Your task to perform on an android device: open app "Google Drive" Image 0: 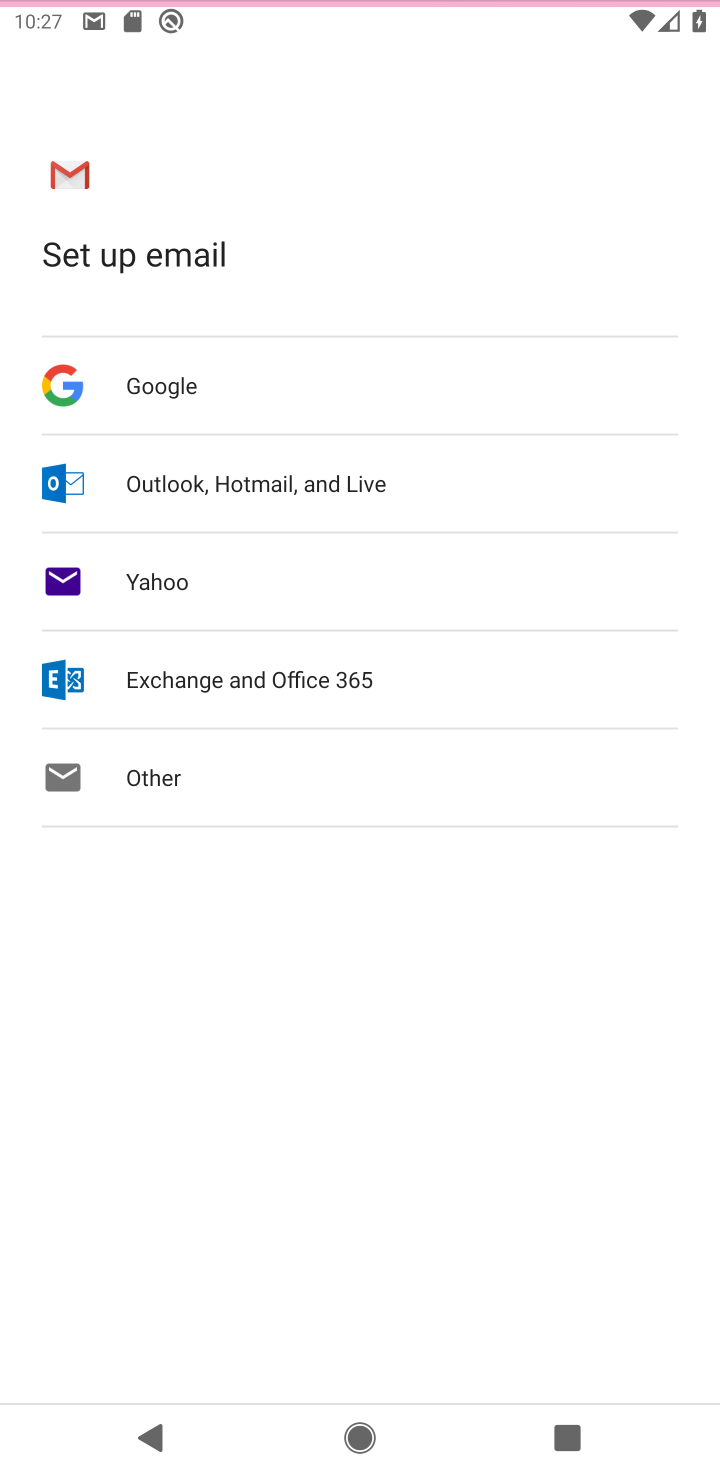
Step 0: press home button
Your task to perform on an android device: open app "Google Drive" Image 1: 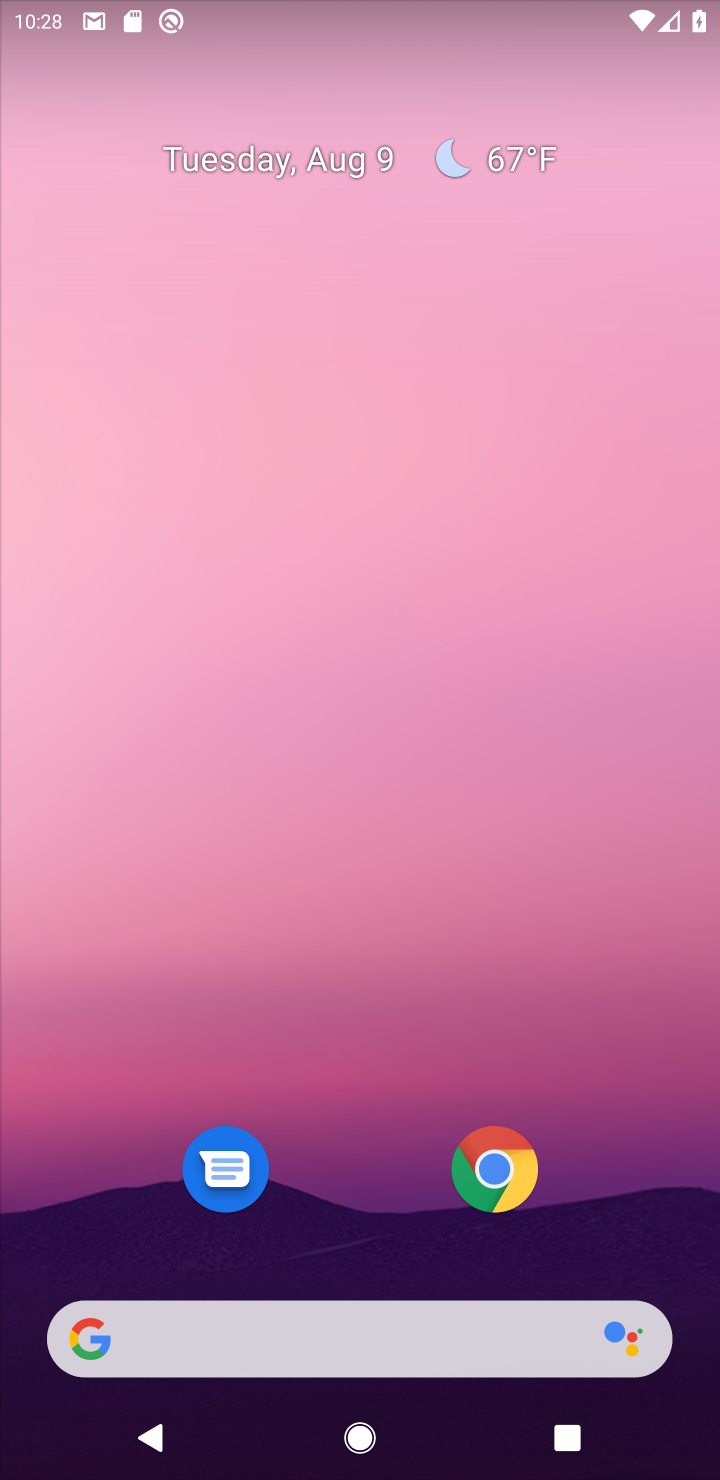
Step 1: drag from (642, 995) to (620, 135)
Your task to perform on an android device: open app "Google Drive" Image 2: 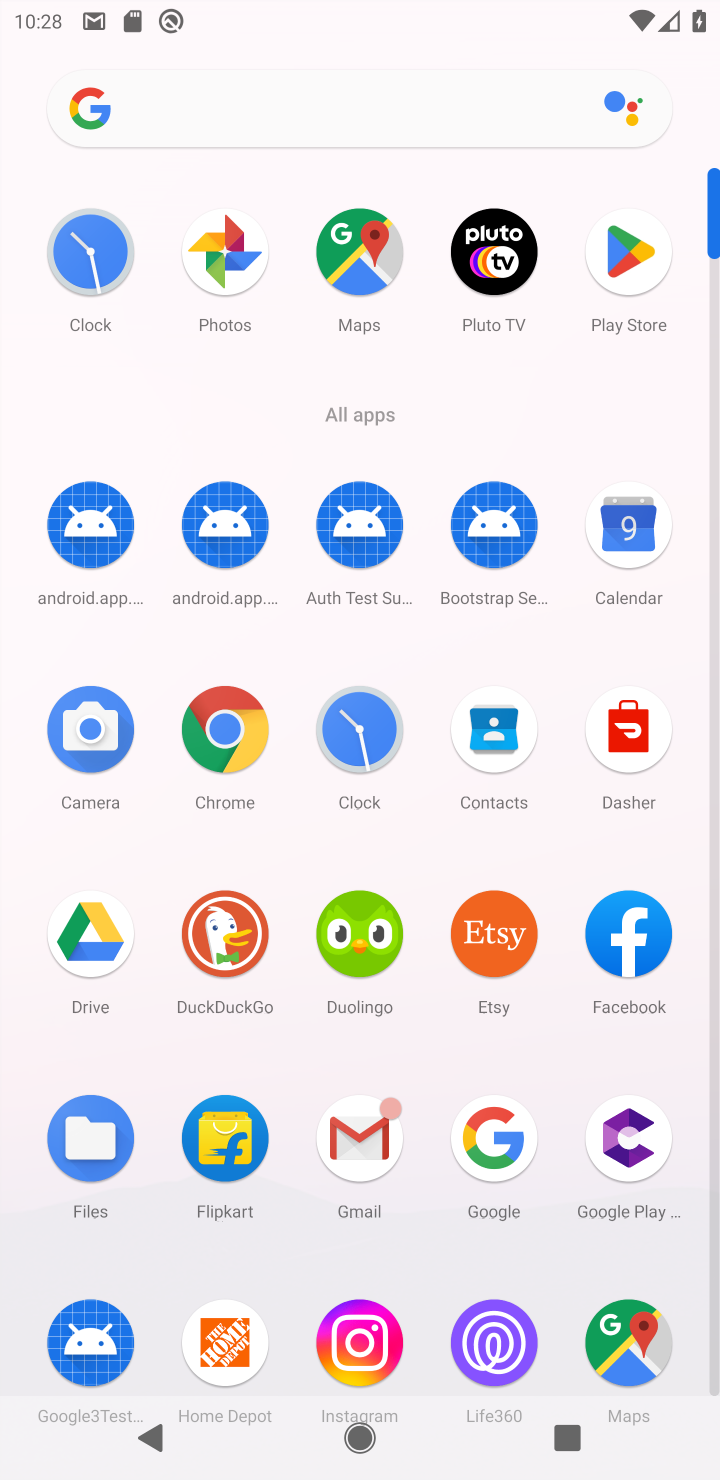
Step 2: click (628, 258)
Your task to perform on an android device: open app "Google Drive" Image 3: 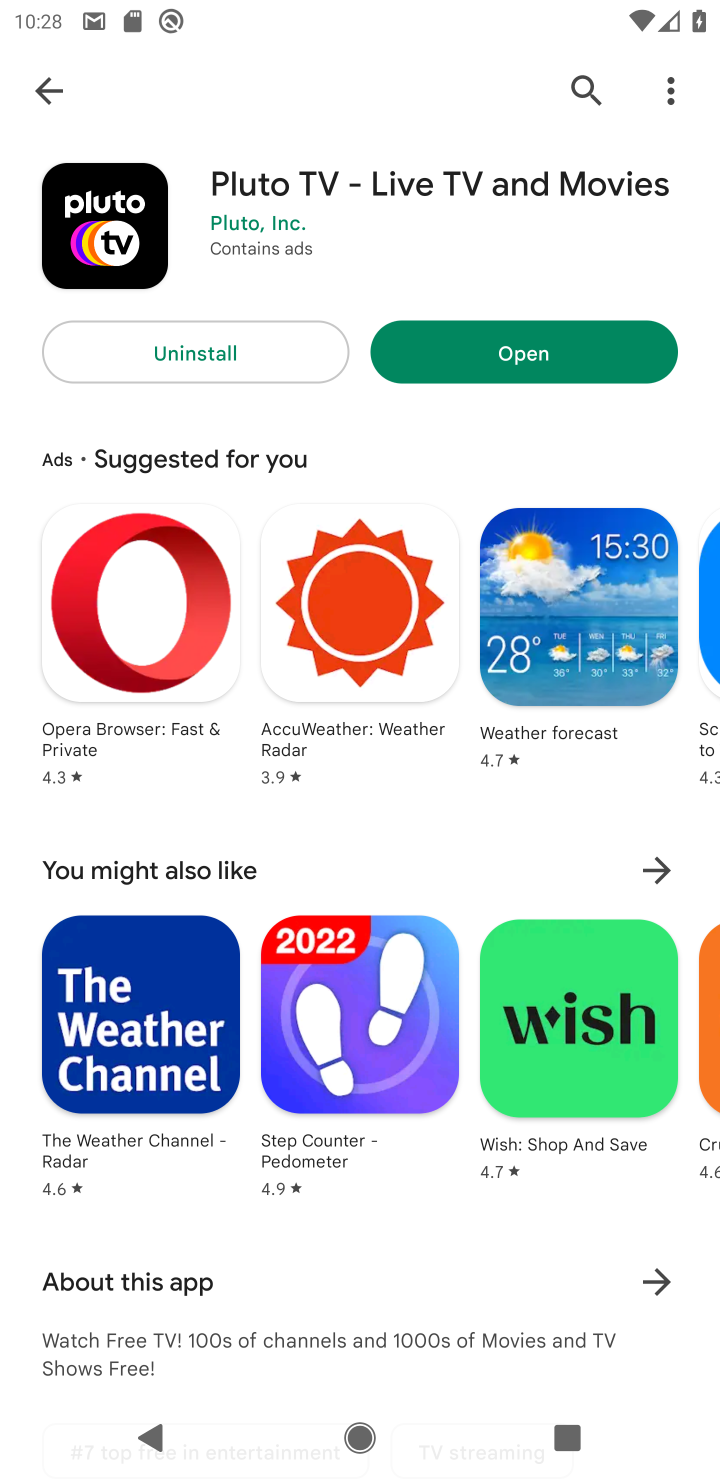
Step 3: click (586, 87)
Your task to perform on an android device: open app "Google Drive" Image 4: 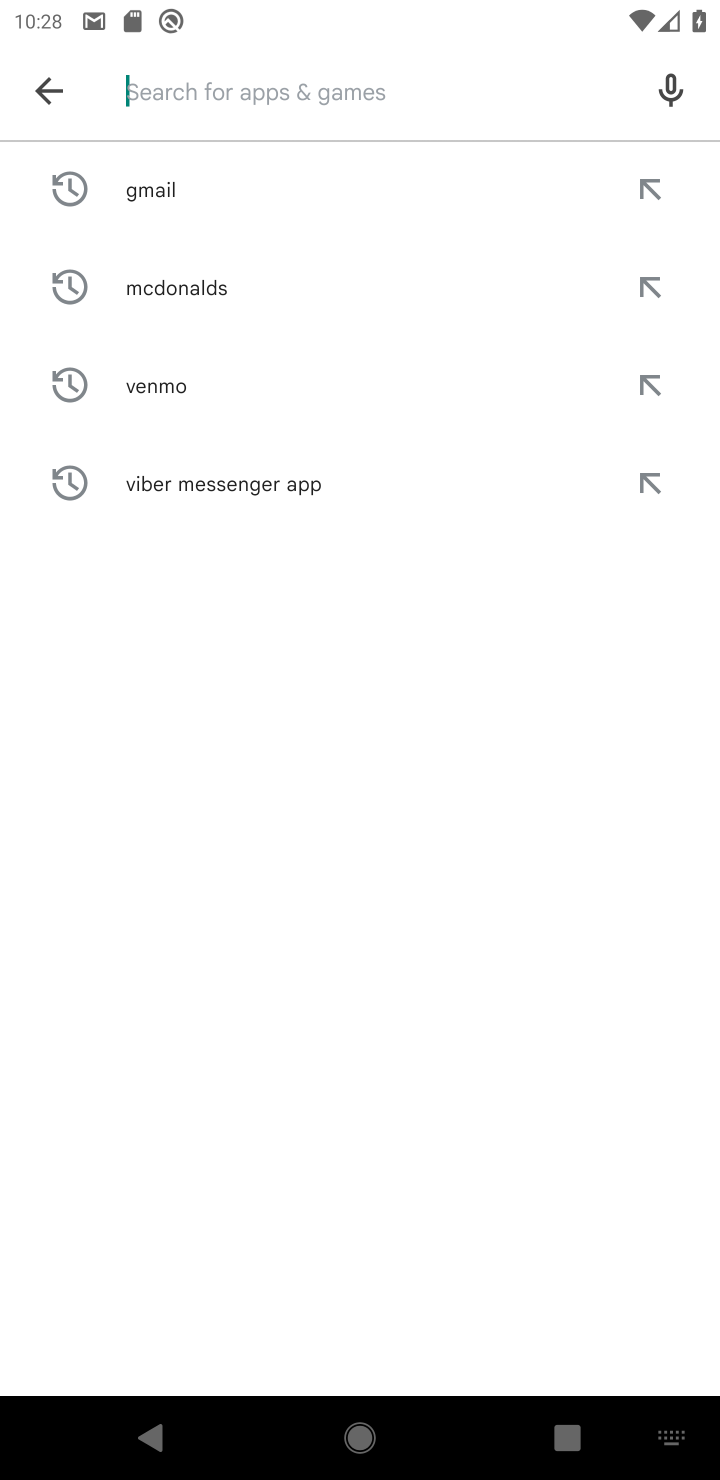
Step 4: type "google drive "
Your task to perform on an android device: open app "Google Drive" Image 5: 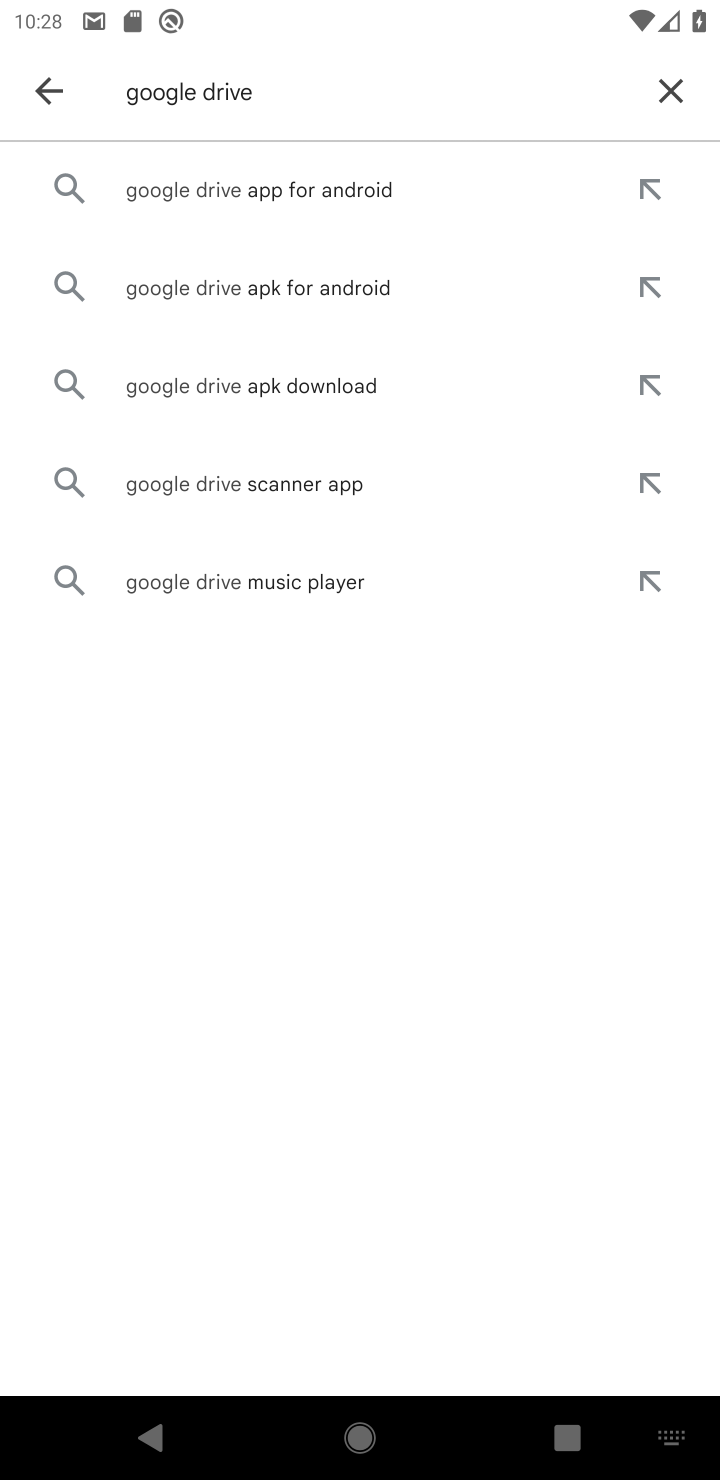
Step 5: click (379, 199)
Your task to perform on an android device: open app "Google Drive" Image 6: 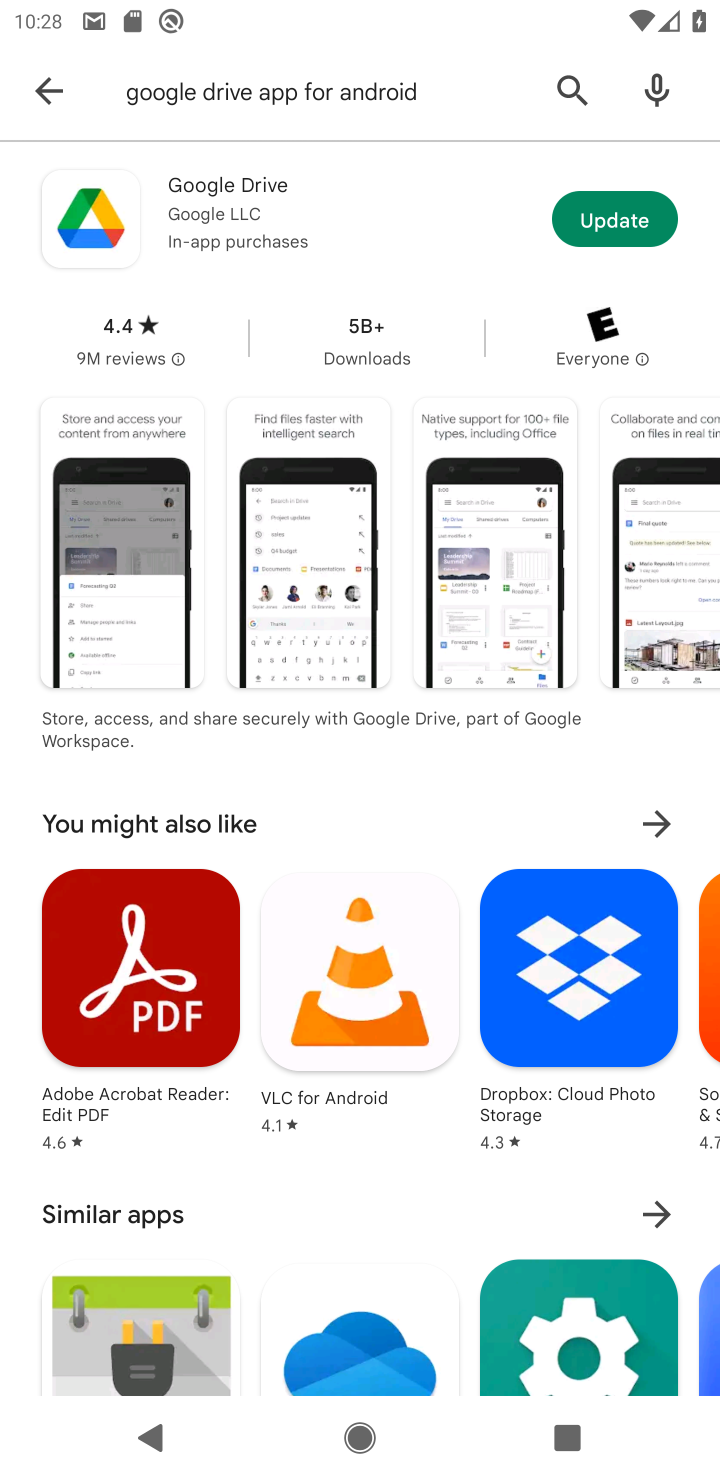
Step 6: click (613, 211)
Your task to perform on an android device: open app "Google Drive" Image 7: 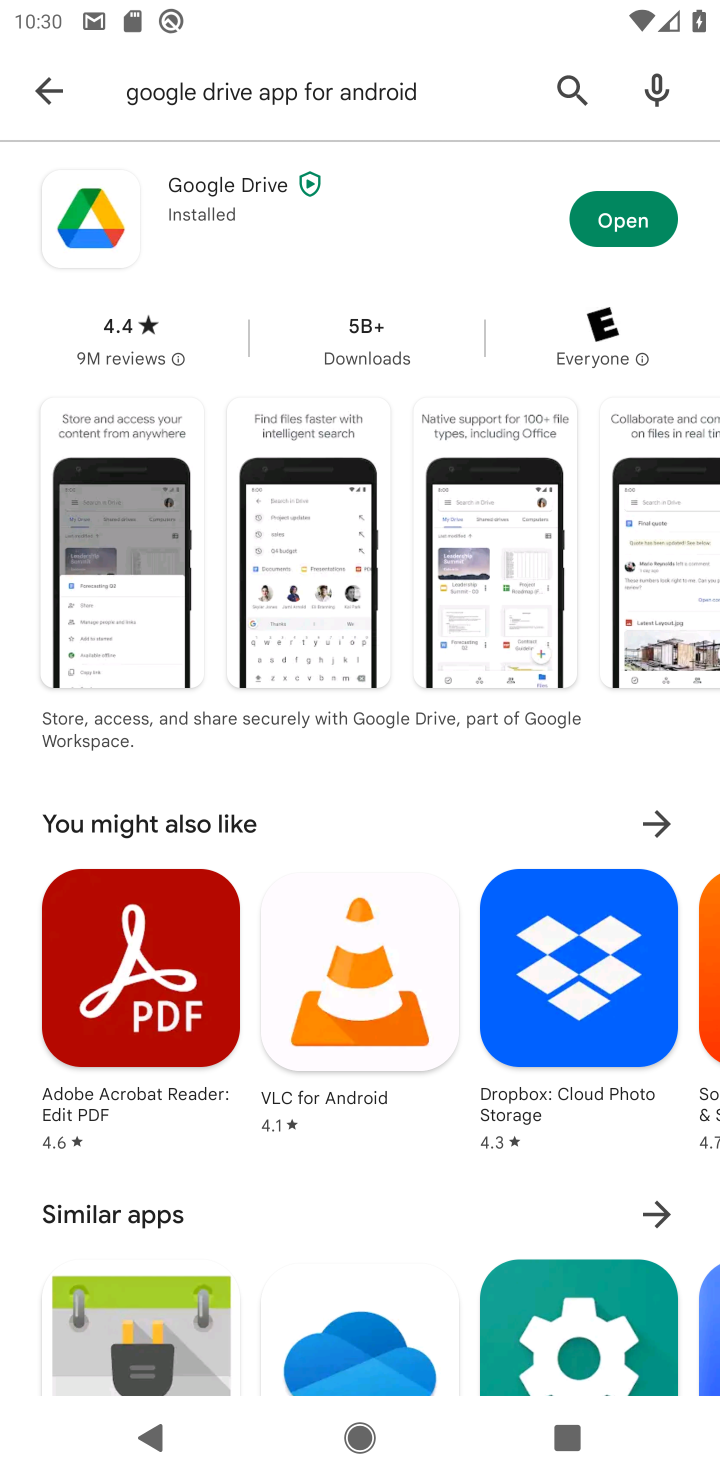
Step 7: click (620, 221)
Your task to perform on an android device: open app "Google Drive" Image 8: 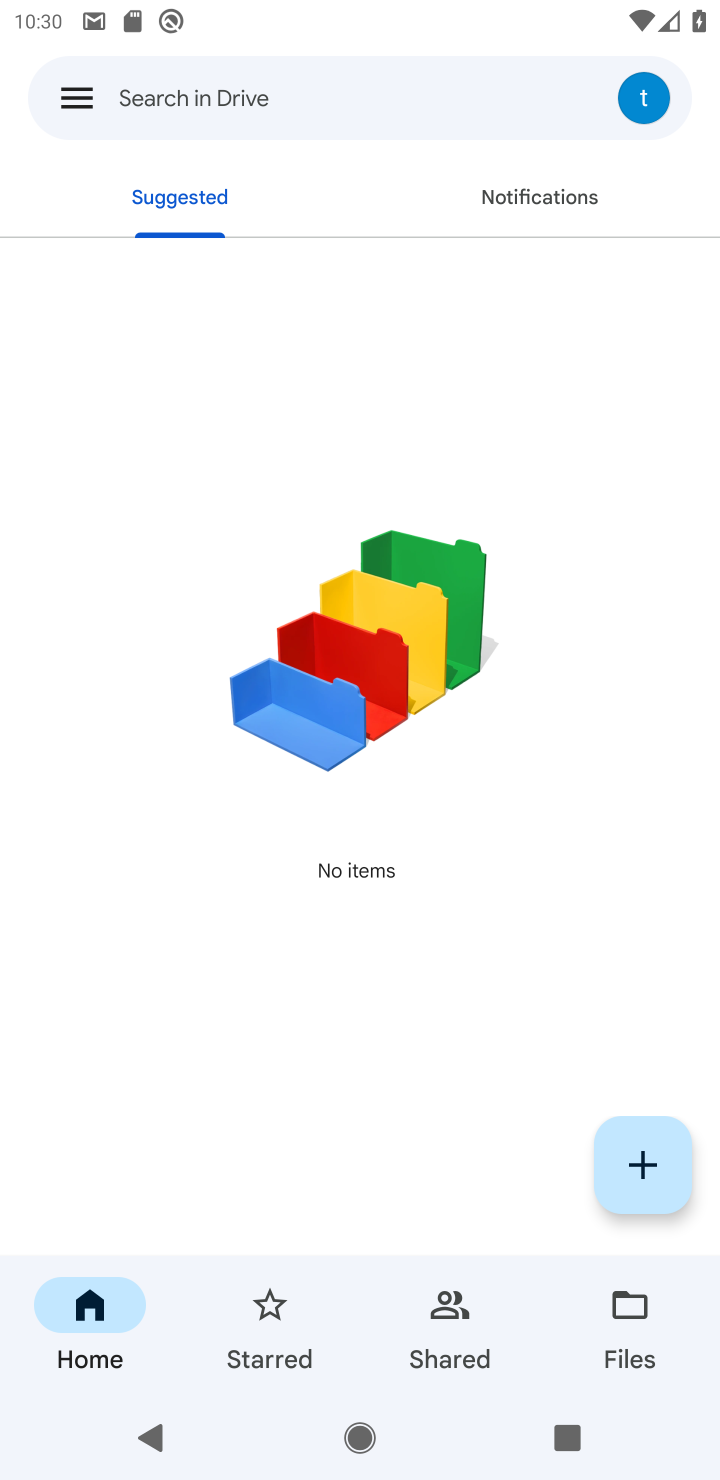
Step 8: task complete